Your task to perform on an android device: Go to display settings Image 0: 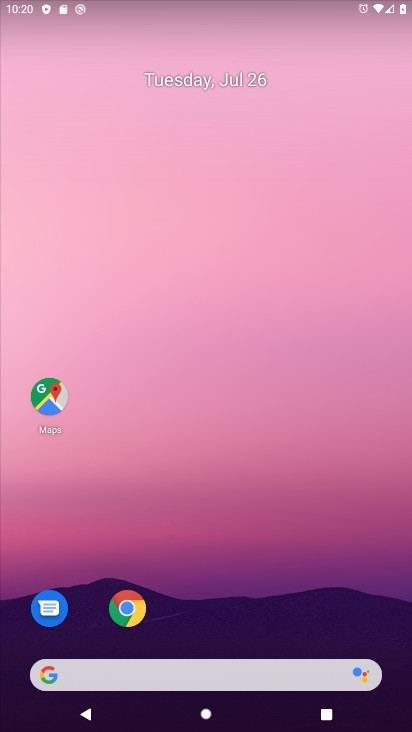
Step 0: drag from (227, 719) to (227, 229)
Your task to perform on an android device: Go to display settings Image 1: 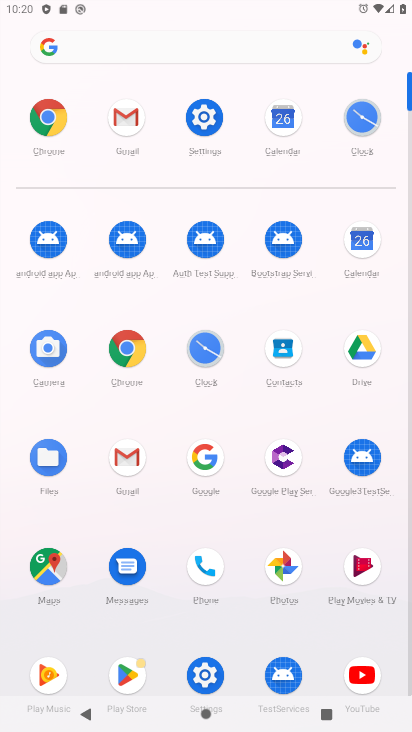
Step 1: click (211, 114)
Your task to perform on an android device: Go to display settings Image 2: 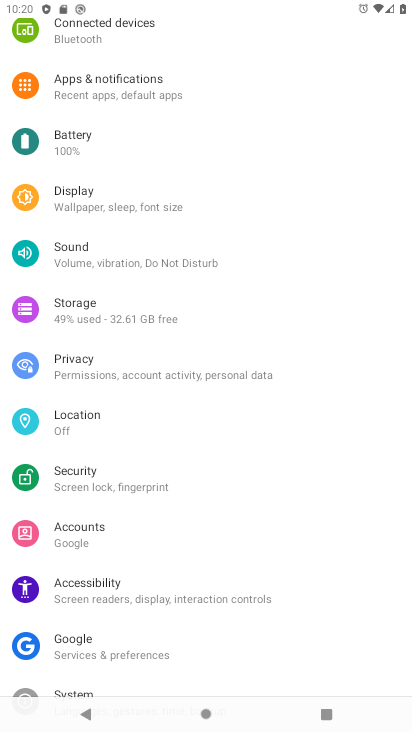
Step 2: click (84, 190)
Your task to perform on an android device: Go to display settings Image 3: 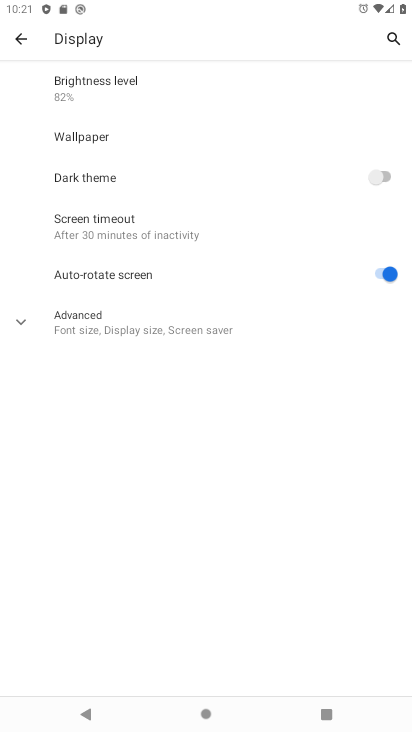
Step 3: task complete